Your task to perform on an android device: Search for razer blackwidow on amazon, select the first entry, add it to the cart, then select checkout. Image 0: 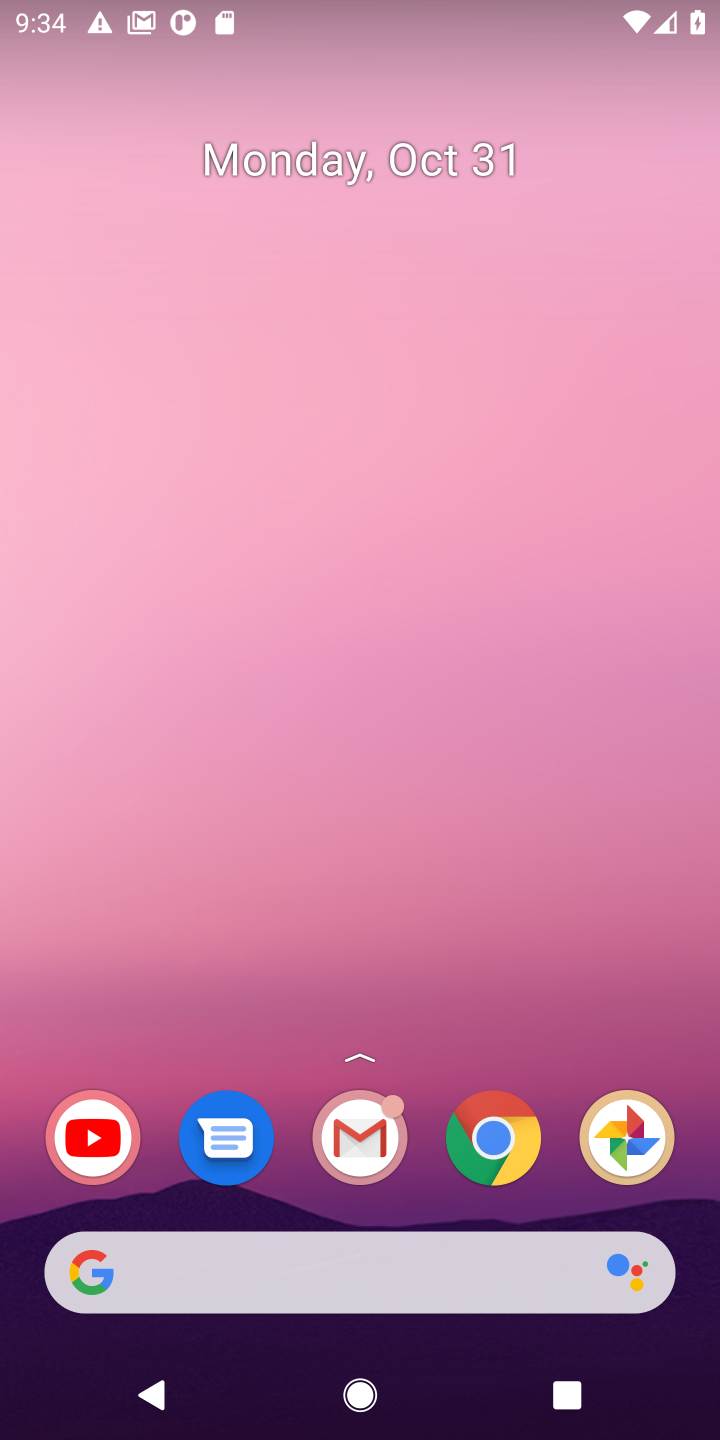
Step 0: drag from (491, 1363) to (540, 121)
Your task to perform on an android device: Search for razer blackwidow on amazon, select the first entry, add it to the cart, then select checkout. Image 1: 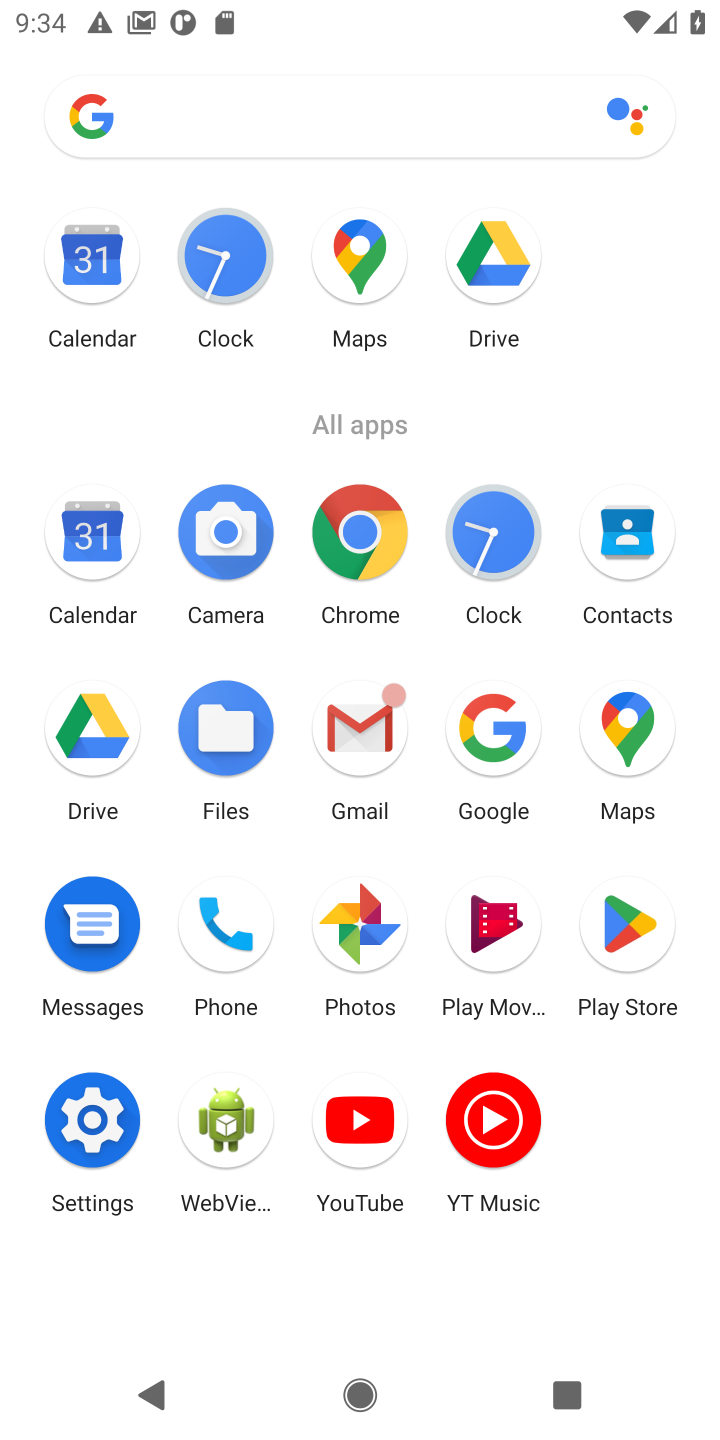
Step 1: click (368, 542)
Your task to perform on an android device: Search for razer blackwidow on amazon, select the first entry, add it to the cart, then select checkout. Image 2: 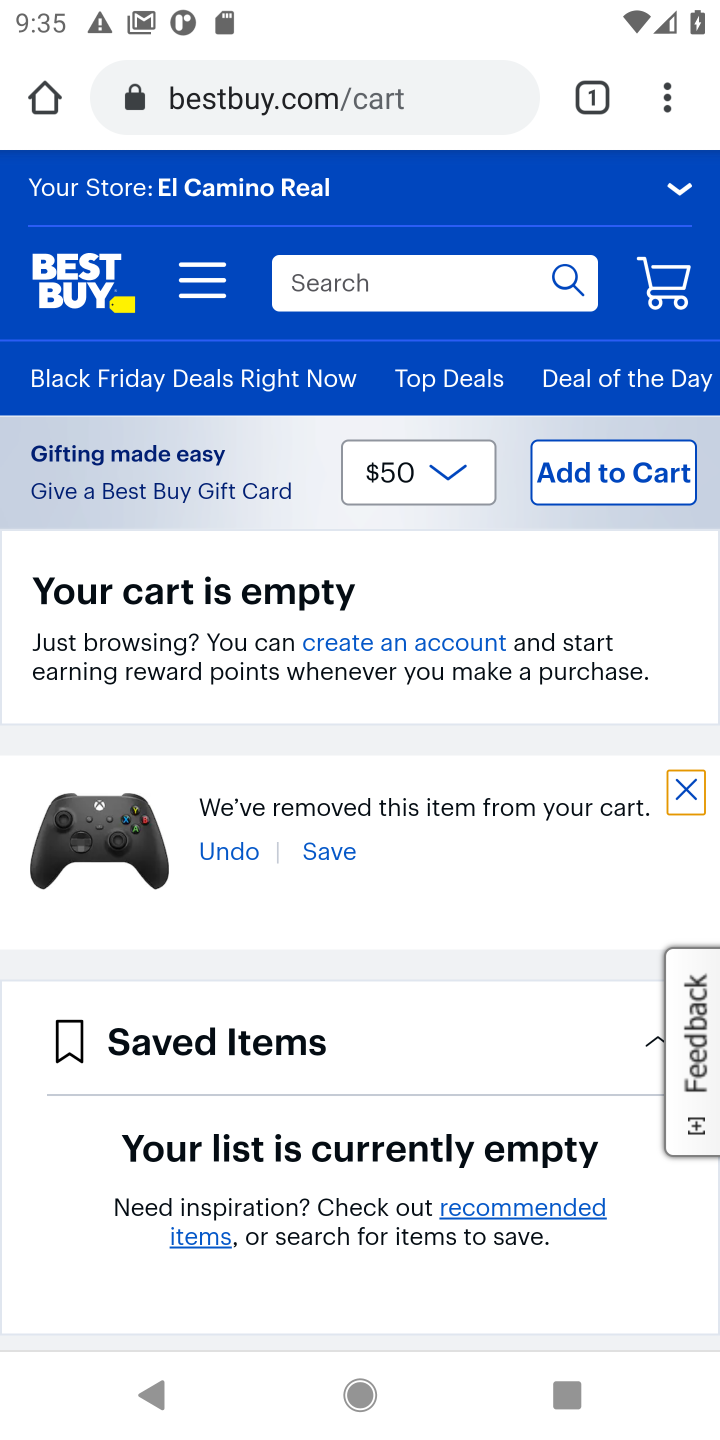
Step 2: click (439, 102)
Your task to perform on an android device: Search for razer blackwidow on amazon, select the first entry, add it to the cart, then select checkout. Image 3: 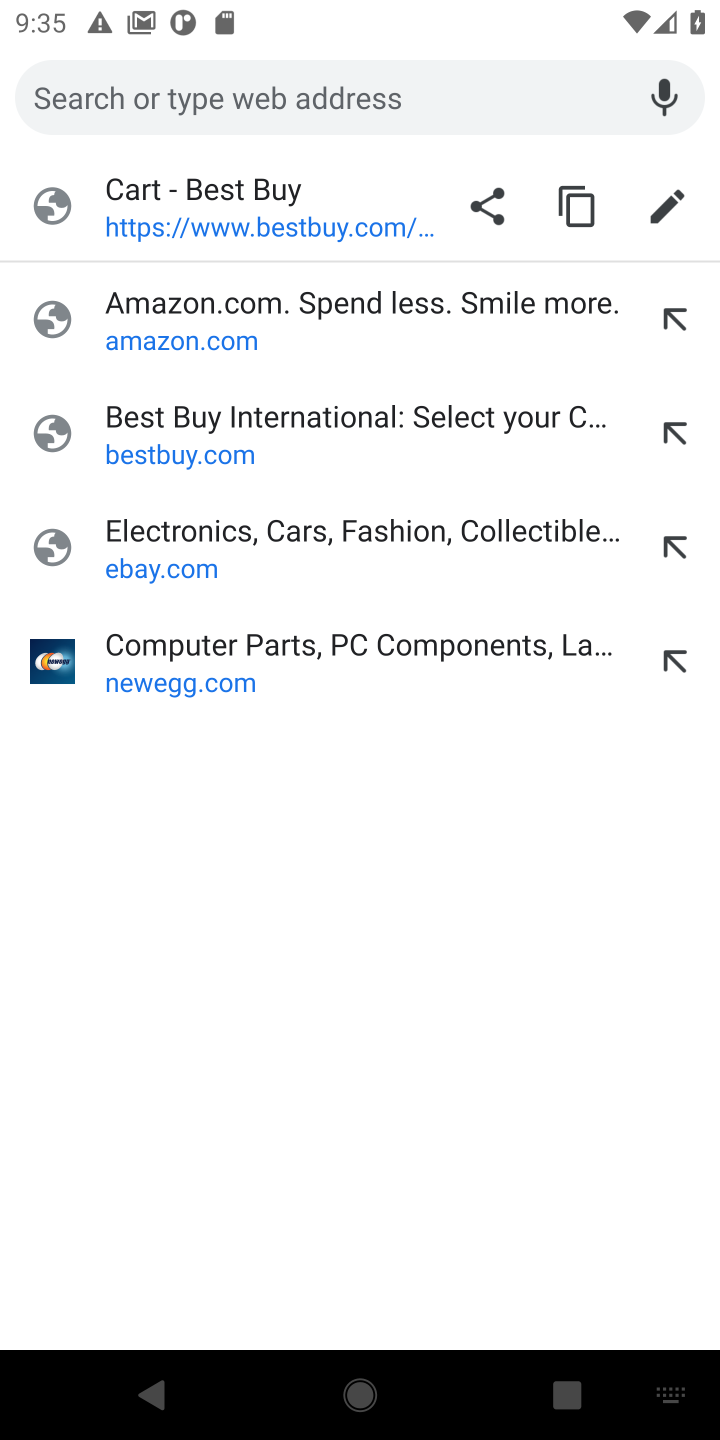
Step 3: type " amazon"
Your task to perform on an android device: Search for razer blackwidow on amazon, select the first entry, add it to the cart, then select checkout. Image 4: 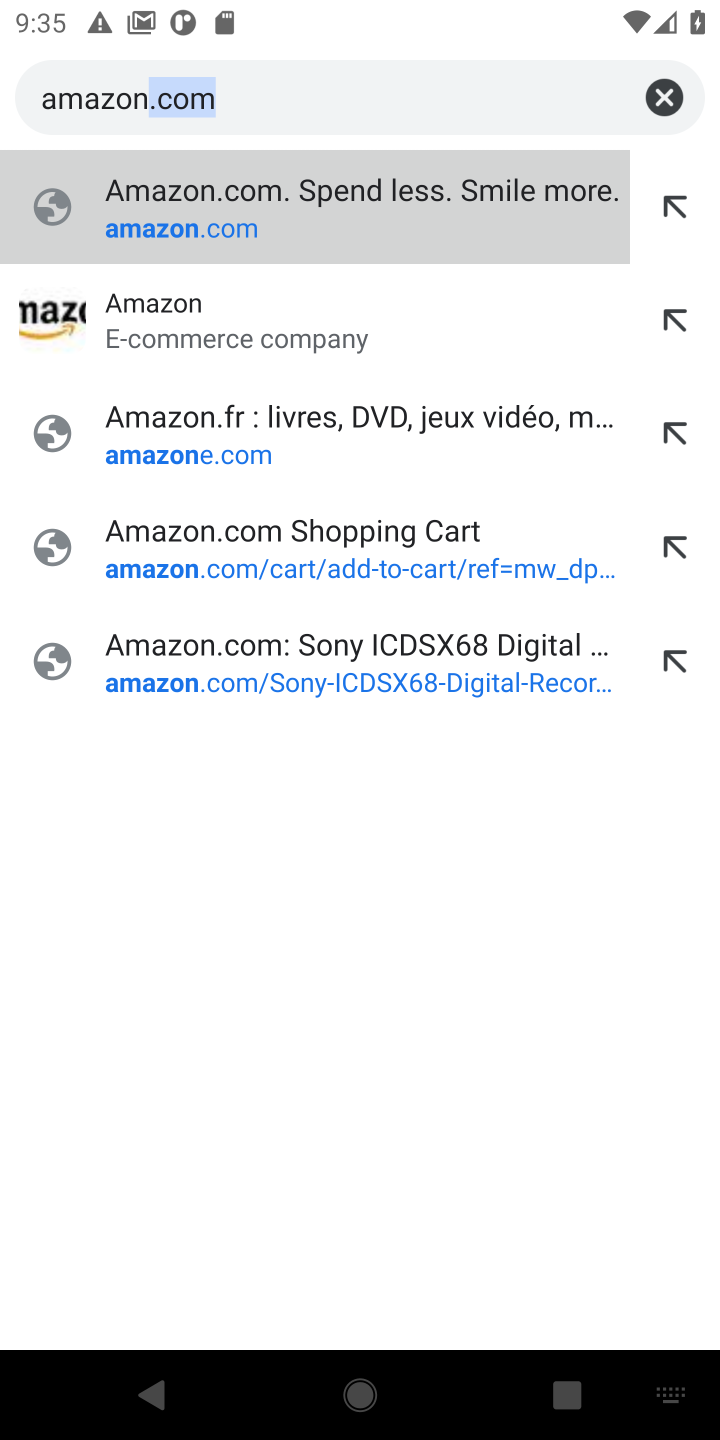
Step 4: click (161, 230)
Your task to perform on an android device: Search for razer blackwidow on amazon, select the first entry, add it to the cart, then select checkout. Image 5: 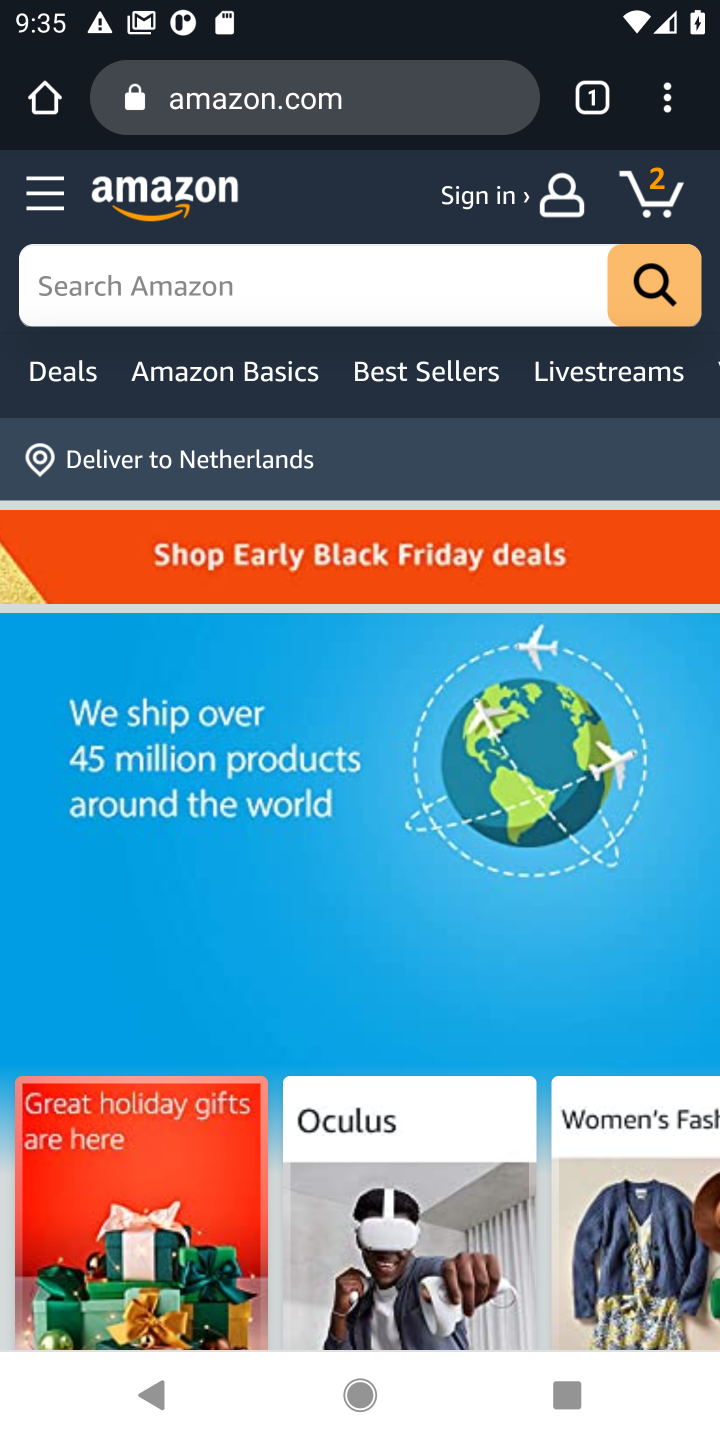
Step 5: click (194, 287)
Your task to perform on an android device: Search for razer blackwidow on amazon, select the first entry, add it to the cart, then select checkout. Image 6: 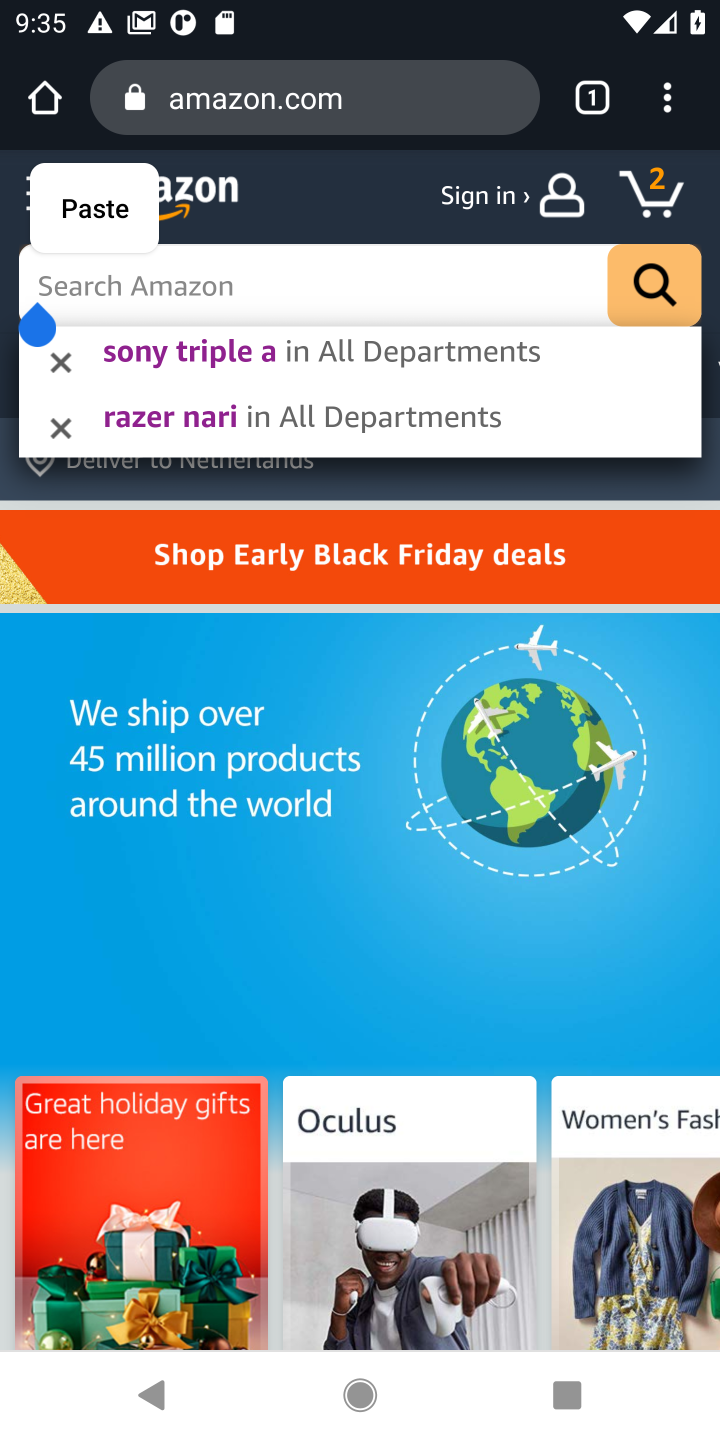
Step 6: type "razer blackwidow"
Your task to perform on an android device: Search for razer blackwidow on amazon, select the first entry, add it to the cart, then select checkout. Image 7: 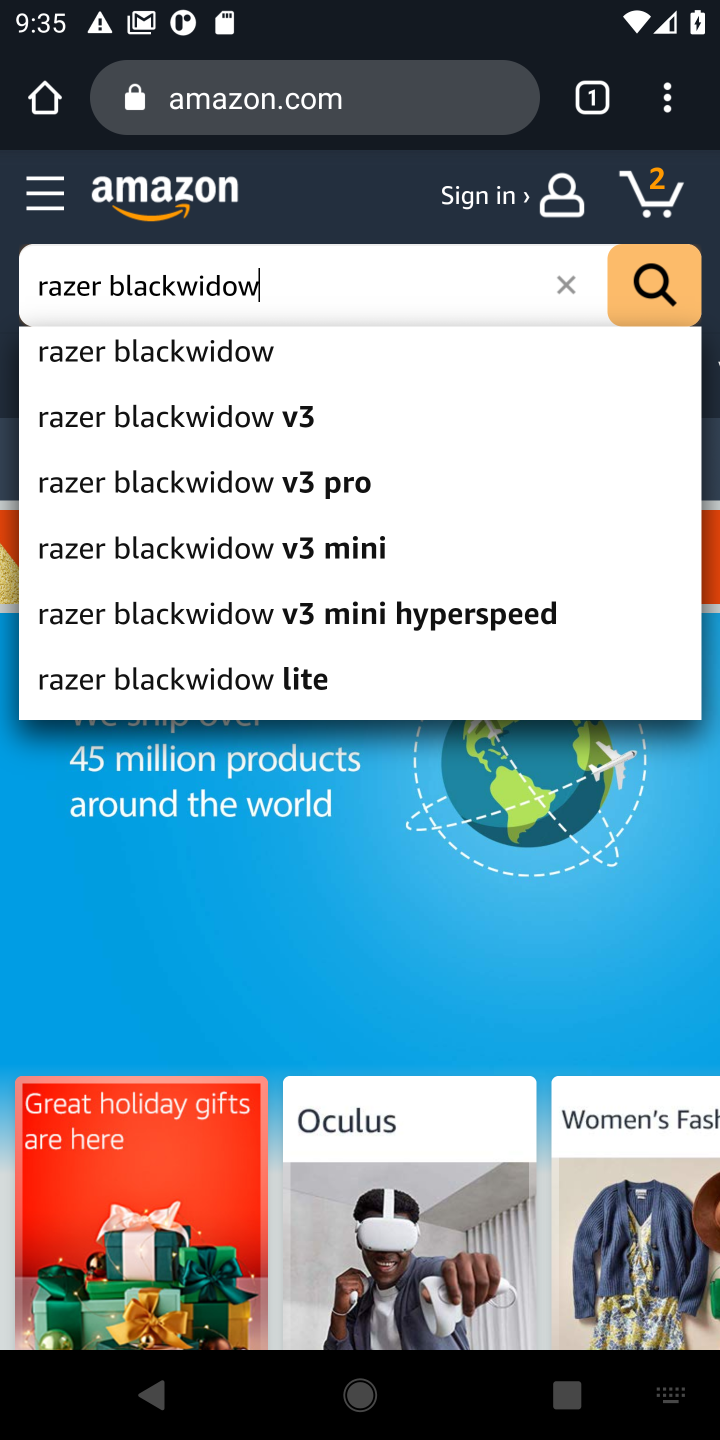
Step 7: click (198, 351)
Your task to perform on an android device: Search for razer blackwidow on amazon, select the first entry, add it to the cart, then select checkout. Image 8: 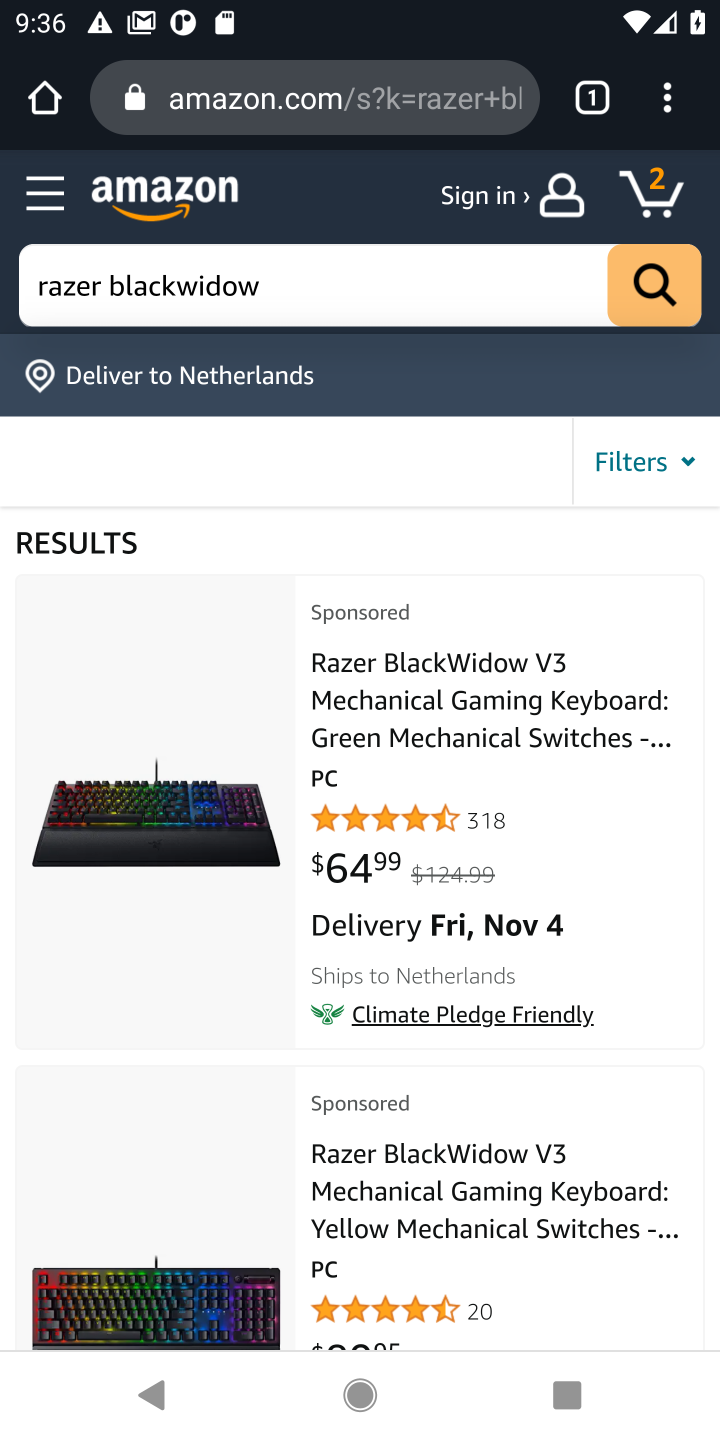
Step 8: click (217, 808)
Your task to perform on an android device: Search for razer blackwidow on amazon, select the first entry, add it to the cart, then select checkout. Image 9: 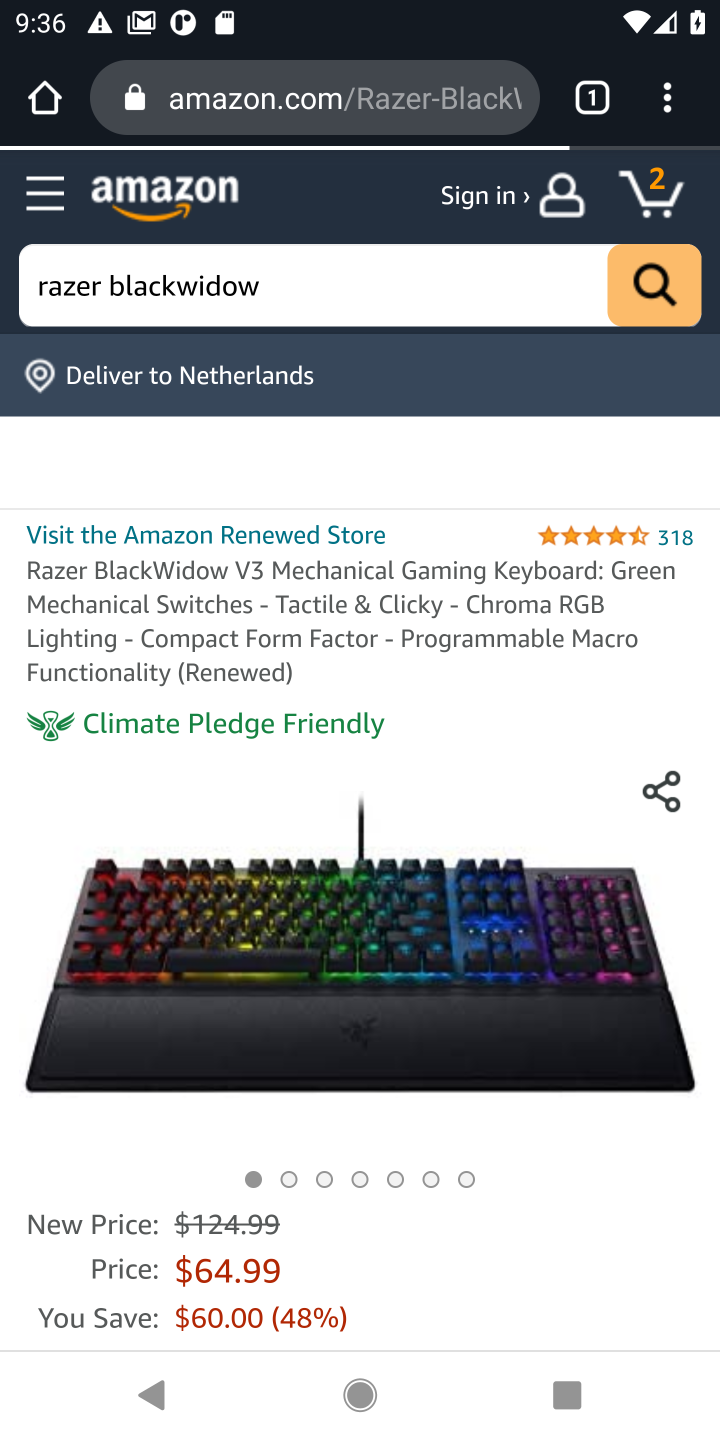
Step 9: drag from (377, 1192) to (361, 369)
Your task to perform on an android device: Search for razer blackwidow on amazon, select the first entry, add it to the cart, then select checkout. Image 10: 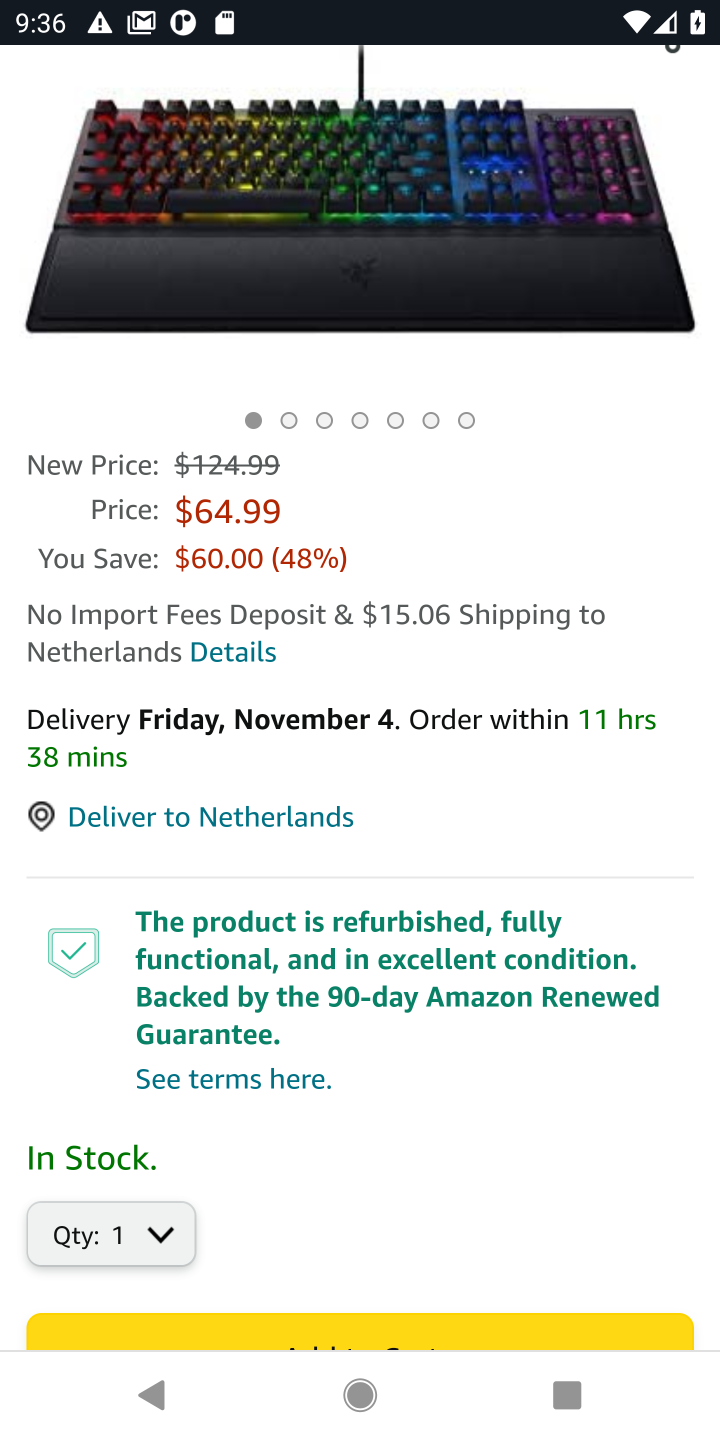
Step 10: drag from (295, 1209) to (457, 408)
Your task to perform on an android device: Search for razer blackwidow on amazon, select the first entry, add it to the cart, then select checkout. Image 11: 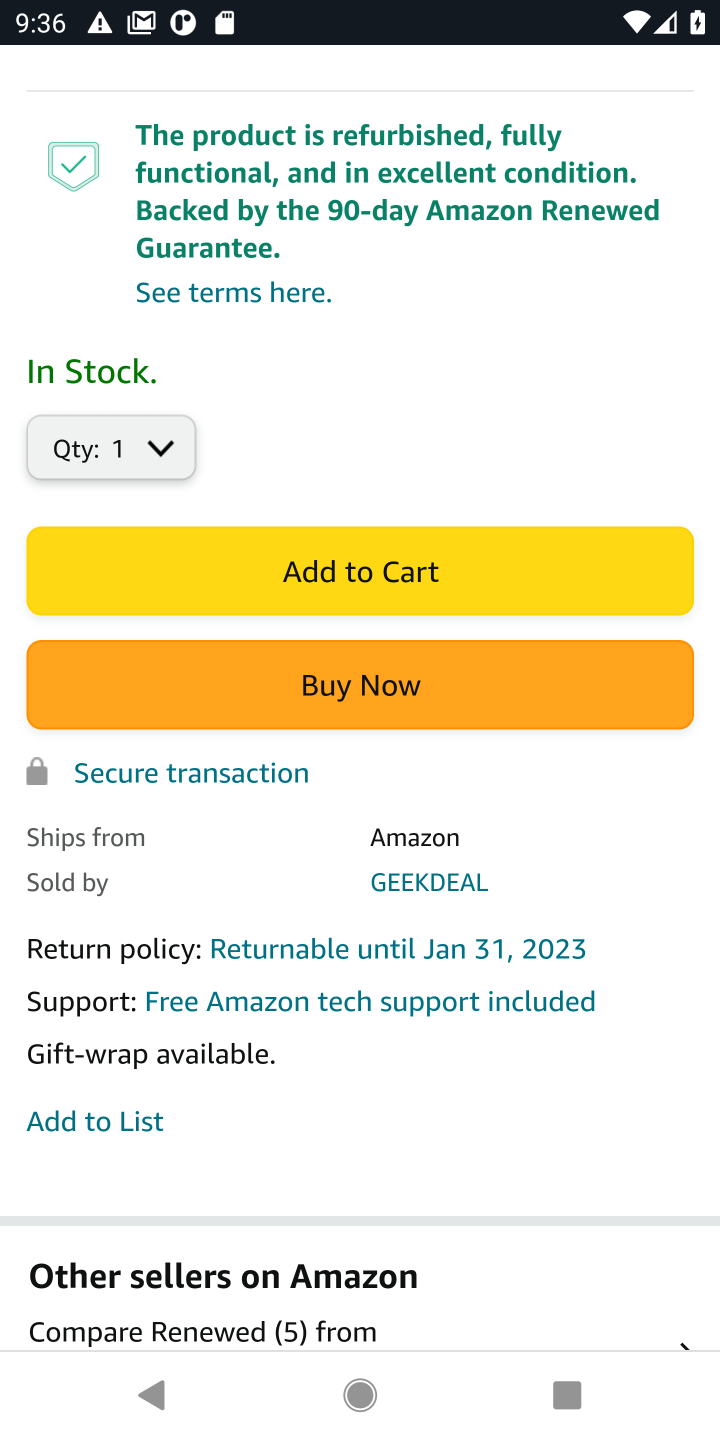
Step 11: click (317, 570)
Your task to perform on an android device: Search for razer blackwidow on amazon, select the first entry, add it to the cart, then select checkout. Image 12: 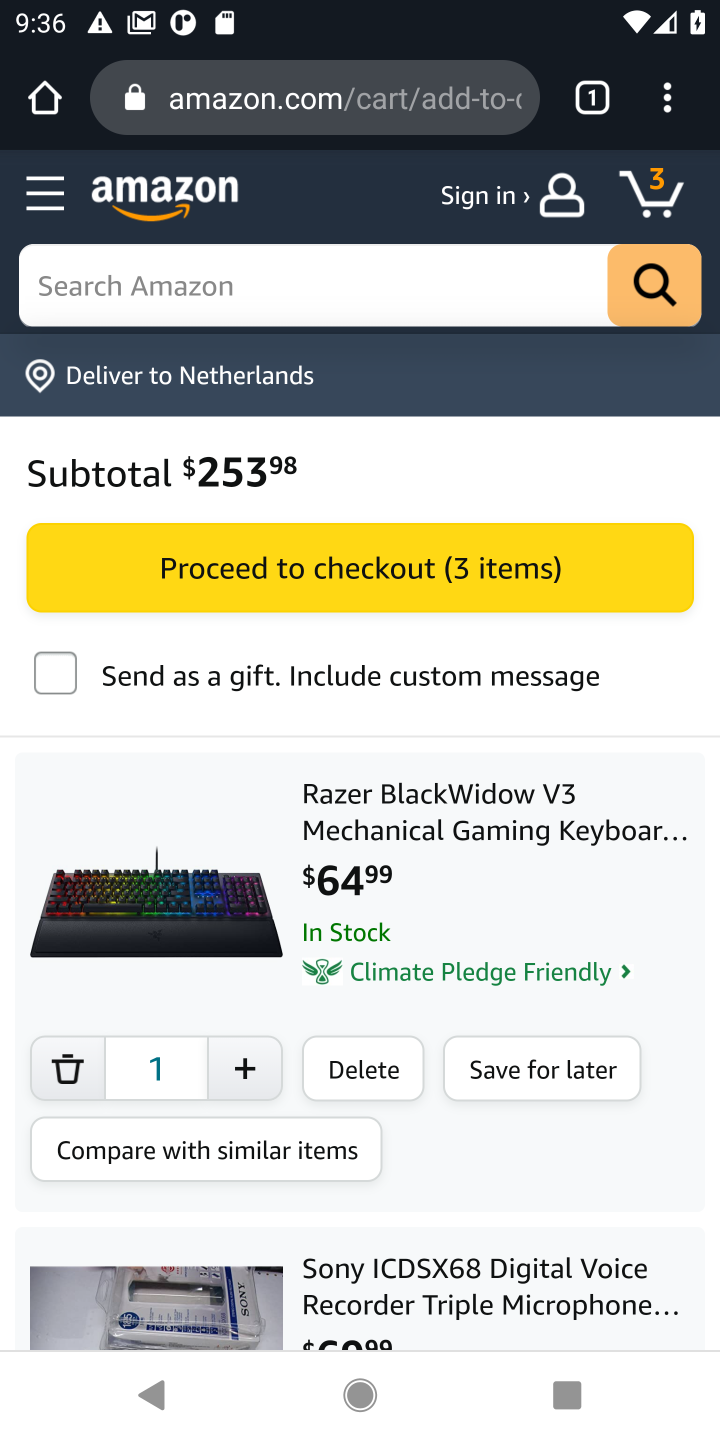
Step 12: task complete